Your task to perform on an android device: set default search engine in the chrome app Image 0: 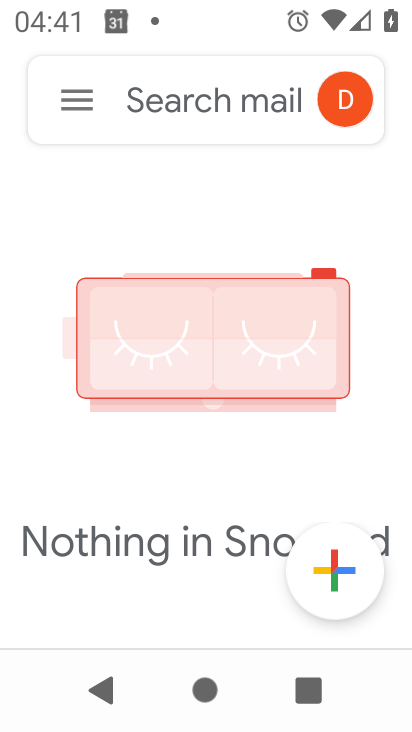
Step 0: press home button
Your task to perform on an android device: set default search engine in the chrome app Image 1: 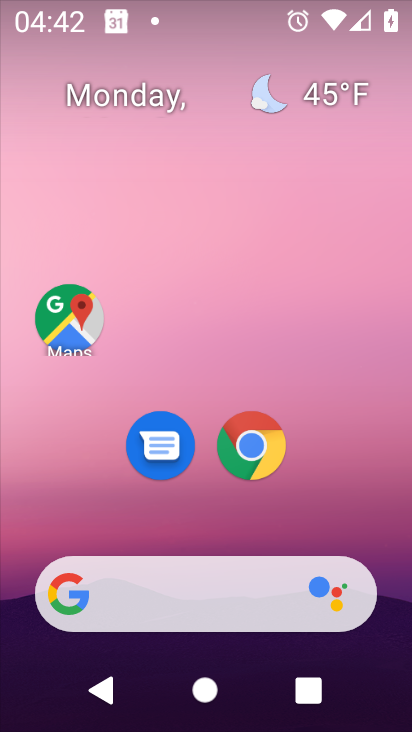
Step 1: click (256, 457)
Your task to perform on an android device: set default search engine in the chrome app Image 2: 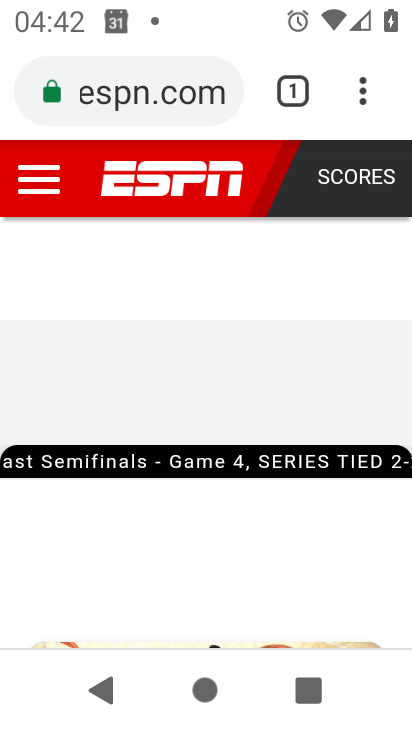
Step 2: click (368, 100)
Your task to perform on an android device: set default search engine in the chrome app Image 3: 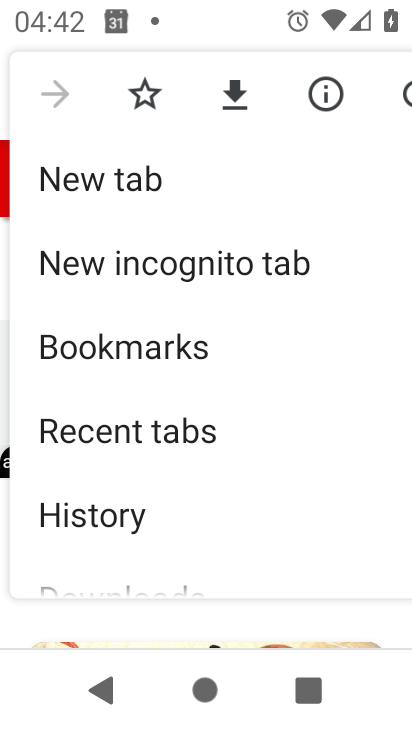
Step 3: drag from (198, 523) to (173, 90)
Your task to perform on an android device: set default search engine in the chrome app Image 4: 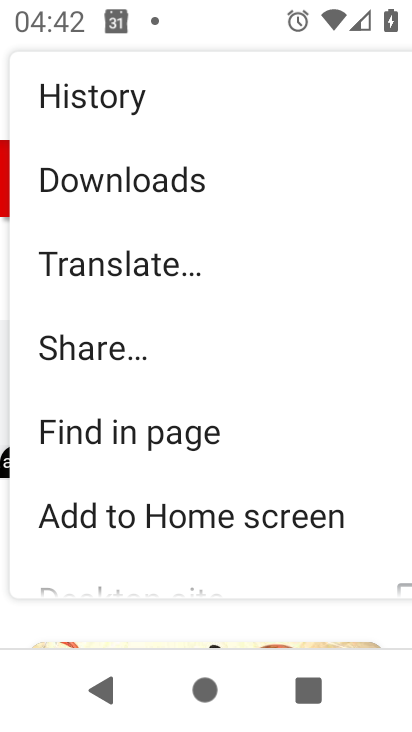
Step 4: drag from (107, 476) to (151, 82)
Your task to perform on an android device: set default search engine in the chrome app Image 5: 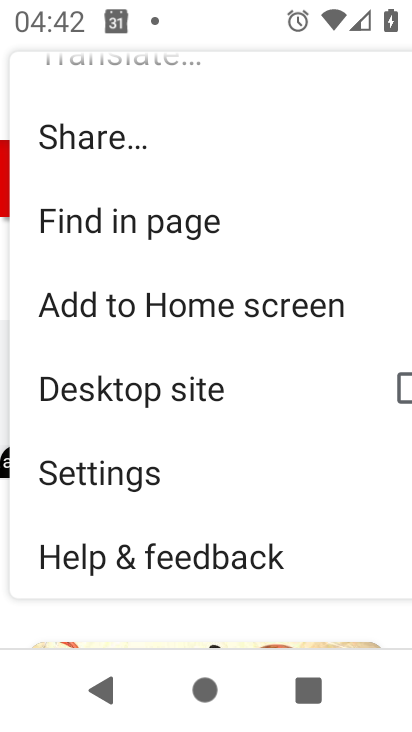
Step 5: click (132, 459)
Your task to perform on an android device: set default search engine in the chrome app Image 6: 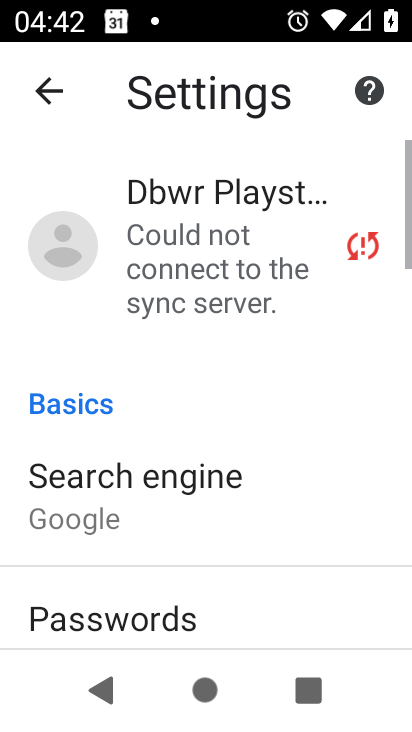
Step 6: click (123, 527)
Your task to perform on an android device: set default search engine in the chrome app Image 7: 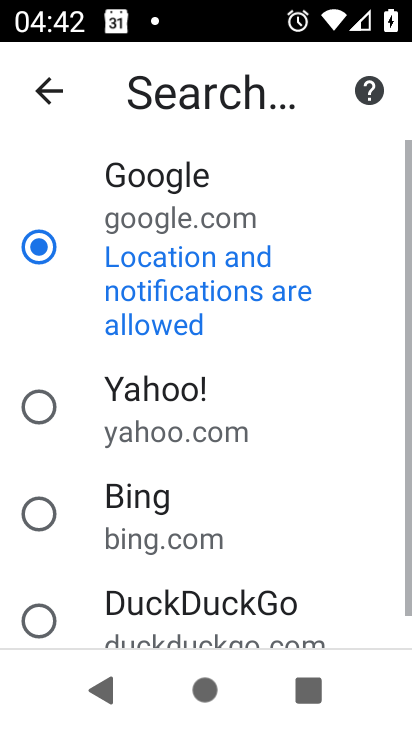
Step 7: click (154, 423)
Your task to perform on an android device: set default search engine in the chrome app Image 8: 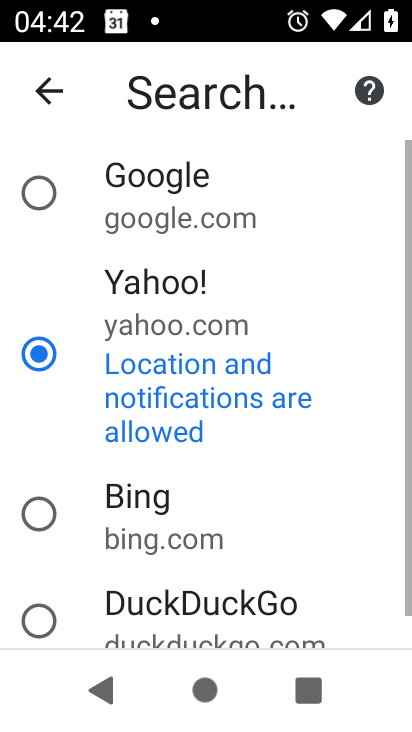
Step 8: task complete